Your task to perform on an android device: Open location settings Image 0: 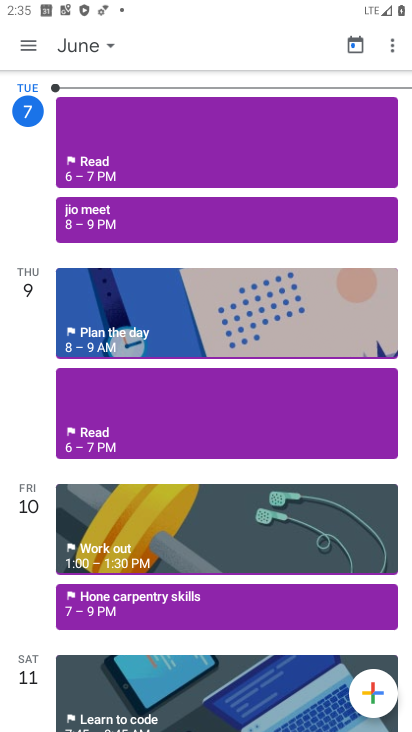
Step 0: press home button
Your task to perform on an android device: Open location settings Image 1: 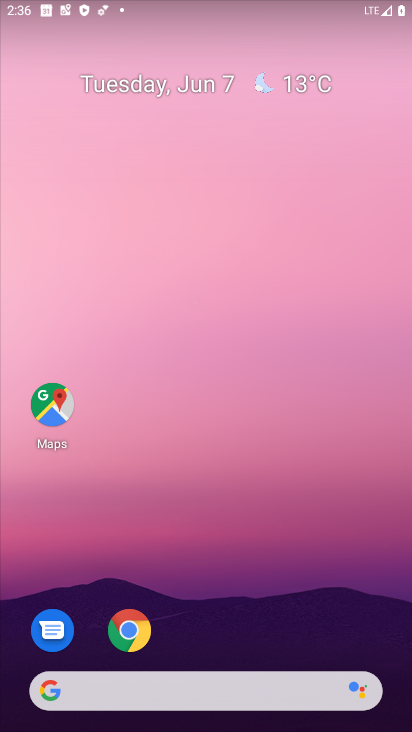
Step 1: drag from (298, 554) to (286, 46)
Your task to perform on an android device: Open location settings Image 2: 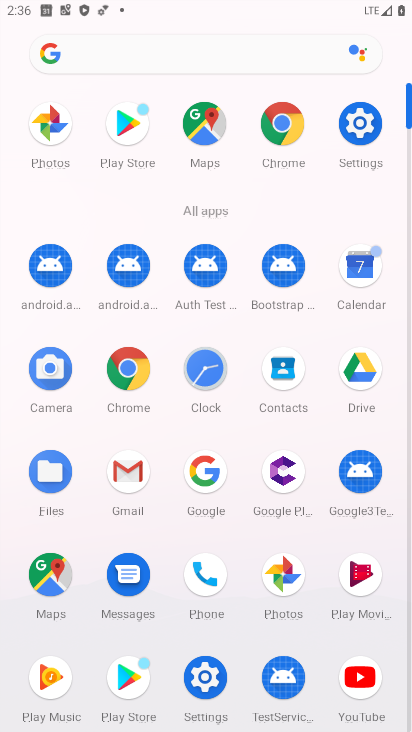
Step 2: click (352, 118)
Your task to perform on an android device: Open location settings Image 3: 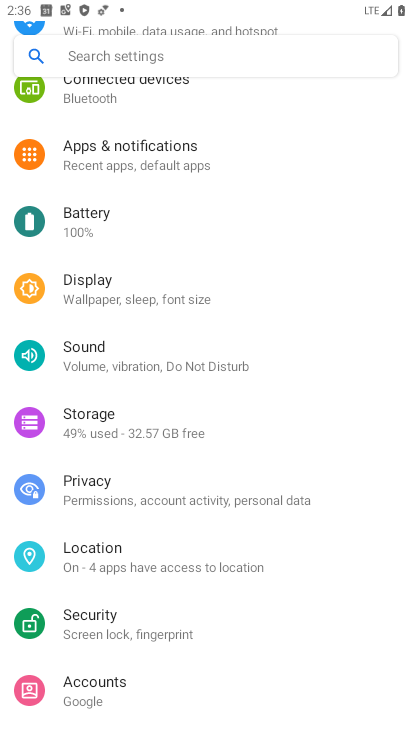
Step 3: click (68, 556)
Your task to perform on an android device: Open location settings Image 4: 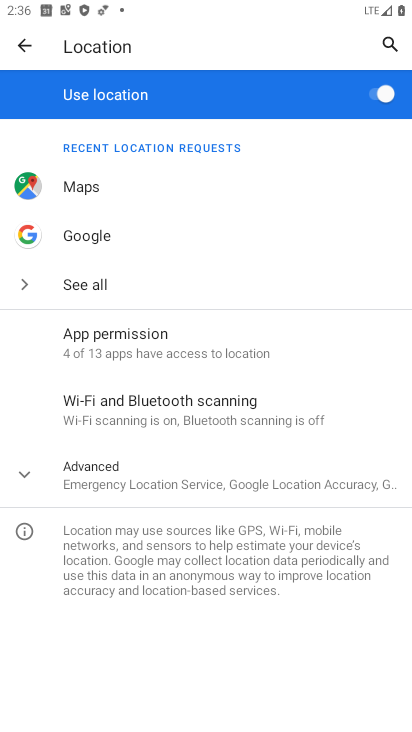
Step 4: task complete